Your task to perform on an android device: uninstall "Google Find My Device" Image 0: 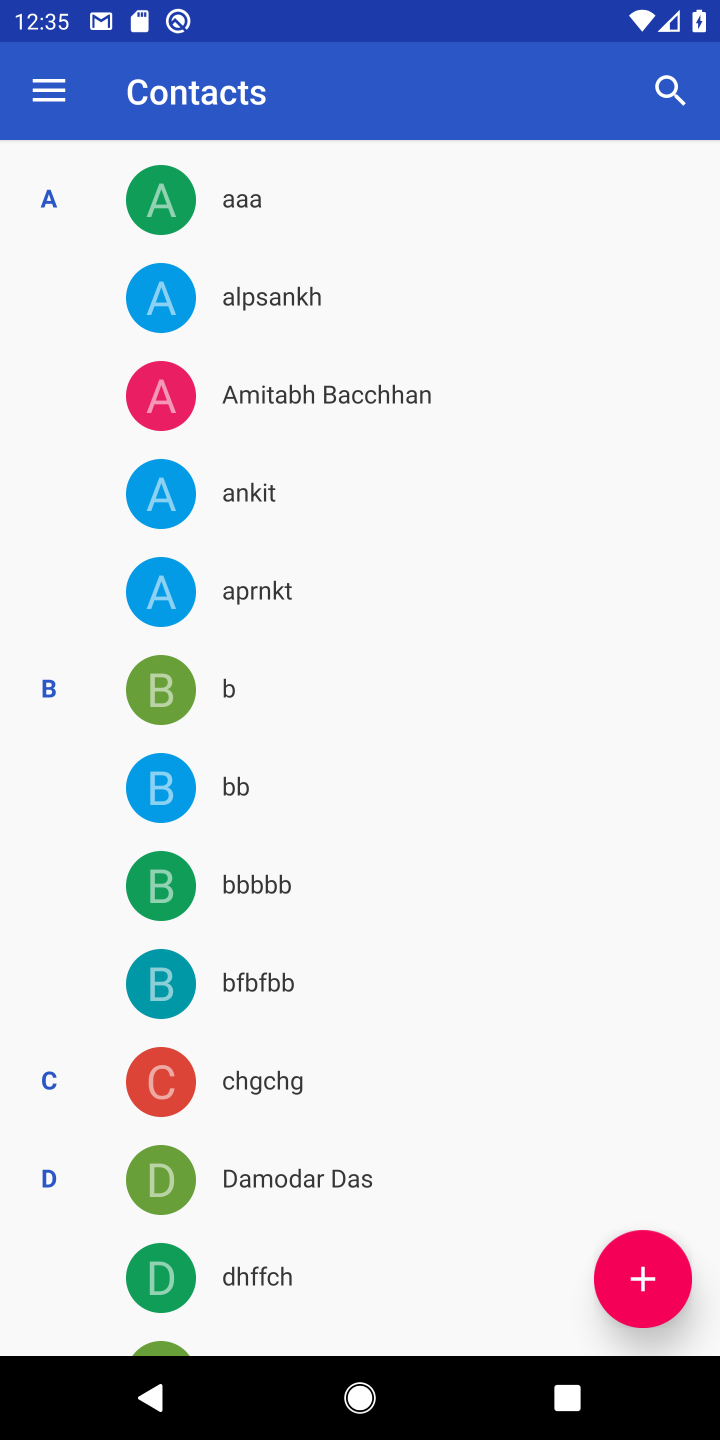
Step 0: press home button
Your task to perform on an android device: uninstall "Google Find My Device" Image 1: 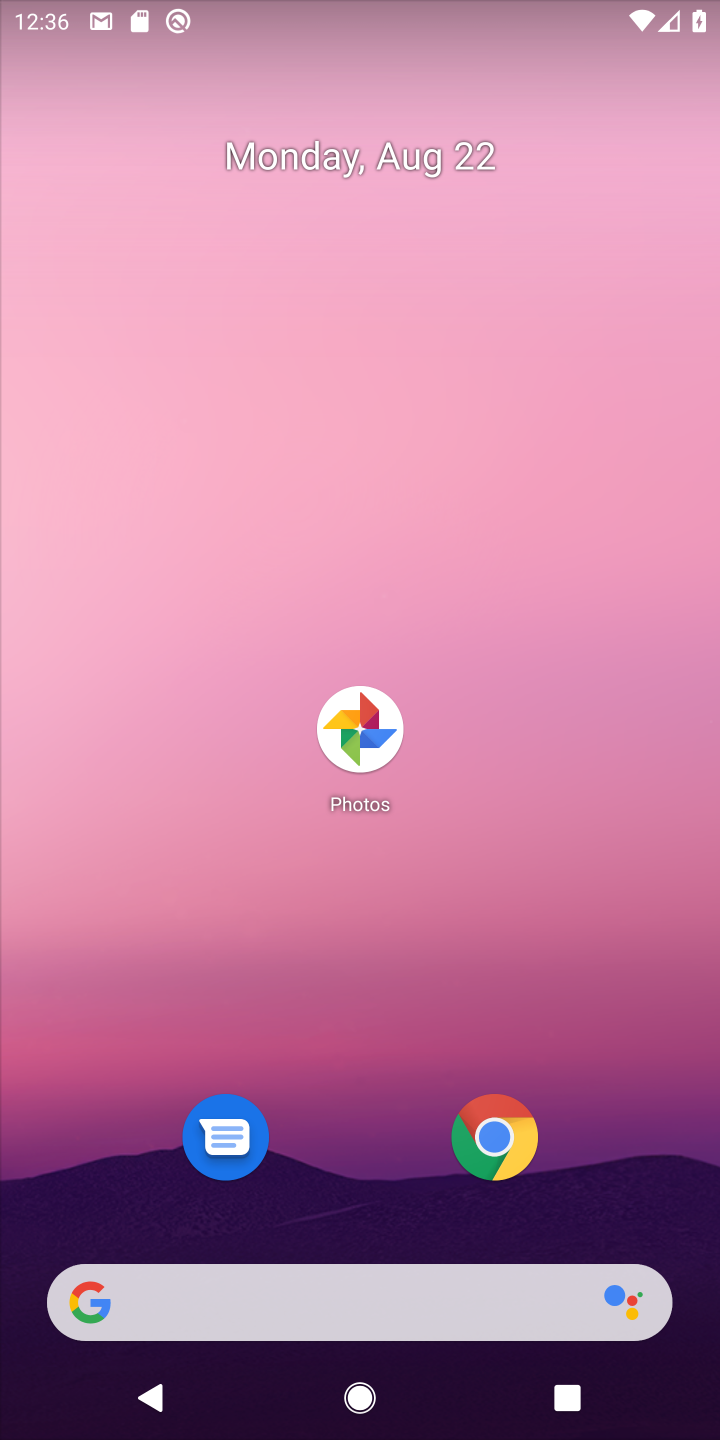
Step 1: drag from (649, 1193) to (562, 181)
Your task to perform on an android device: uninstall "Google Find My Device" Image 2: 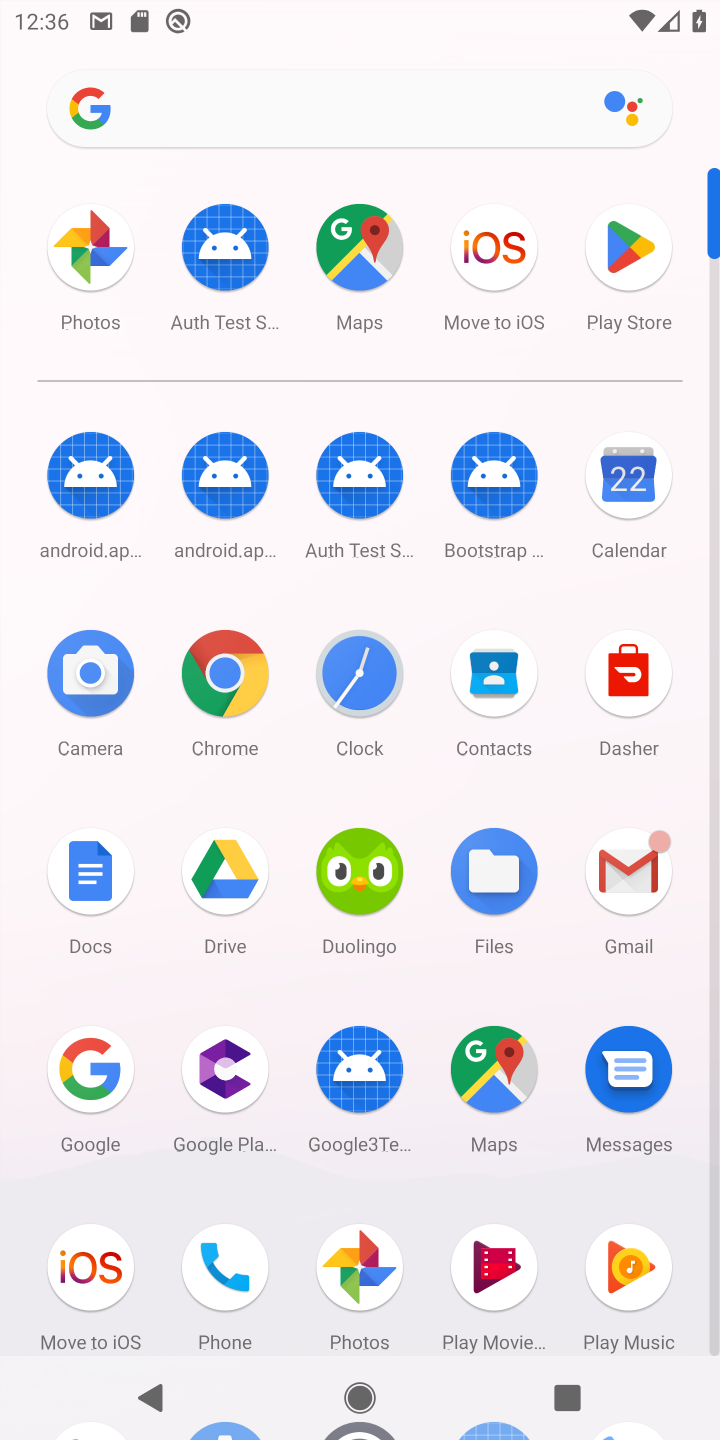
Step 2: drag from (283, 1199) to (304, 354)
Your task to perform on an android device: uninstall "Google Find My Device" Image 3: 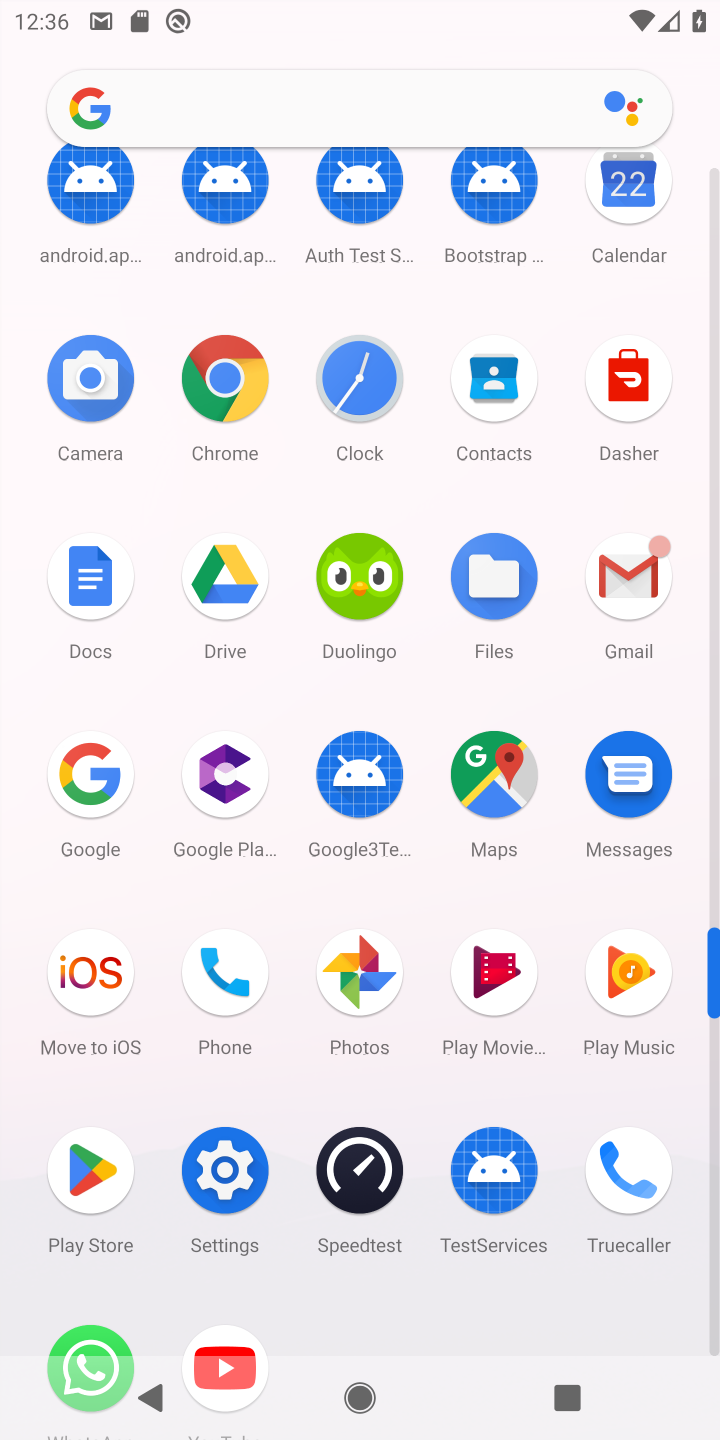
Step 3: click (95, 1168)
Your task to perform on an android device: uninstall "Google Find My Device" Image 4: 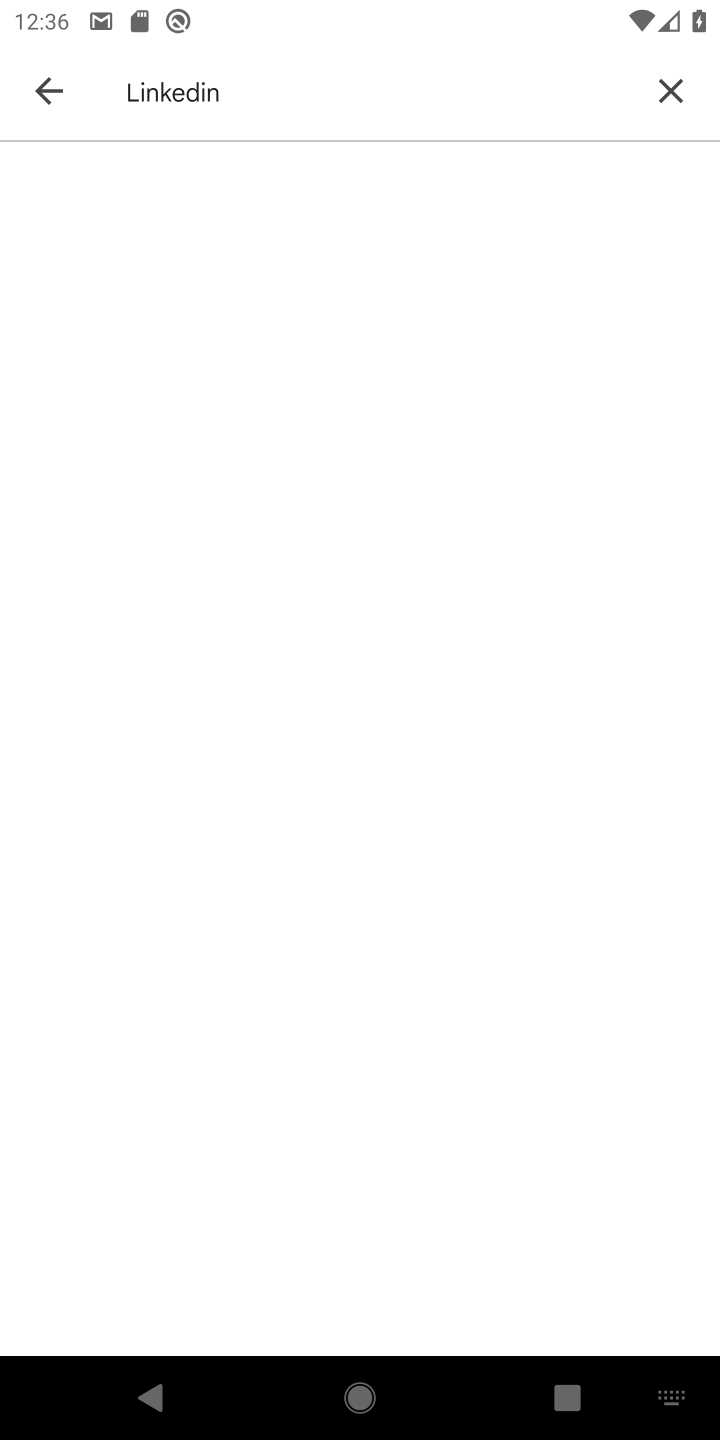
Step 4: click (673, 79)
Your task to perform on an android device: uninstall "Google Find My Device" Image 5: 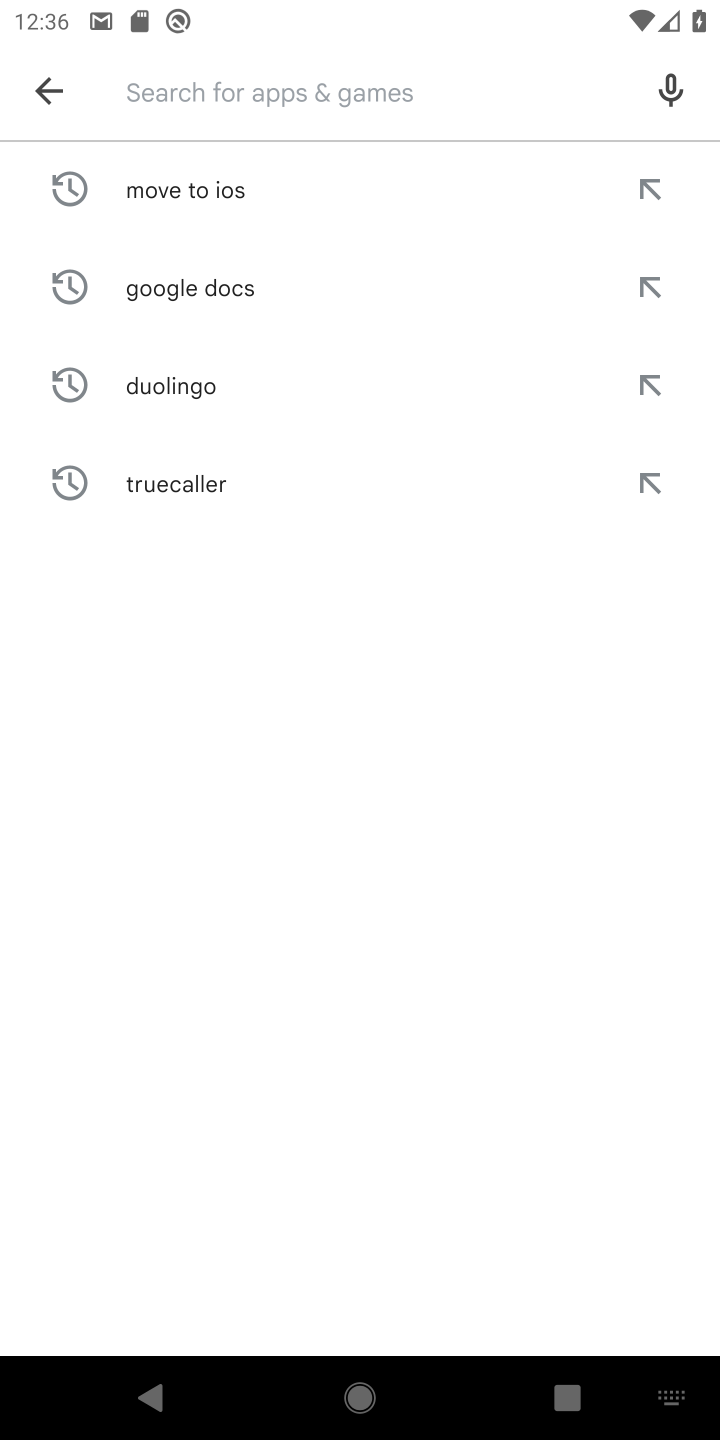
Step 5: type "Google Find My Device"
Your task to perform on an android device: uninstall "Google Find My Device" Image 6: 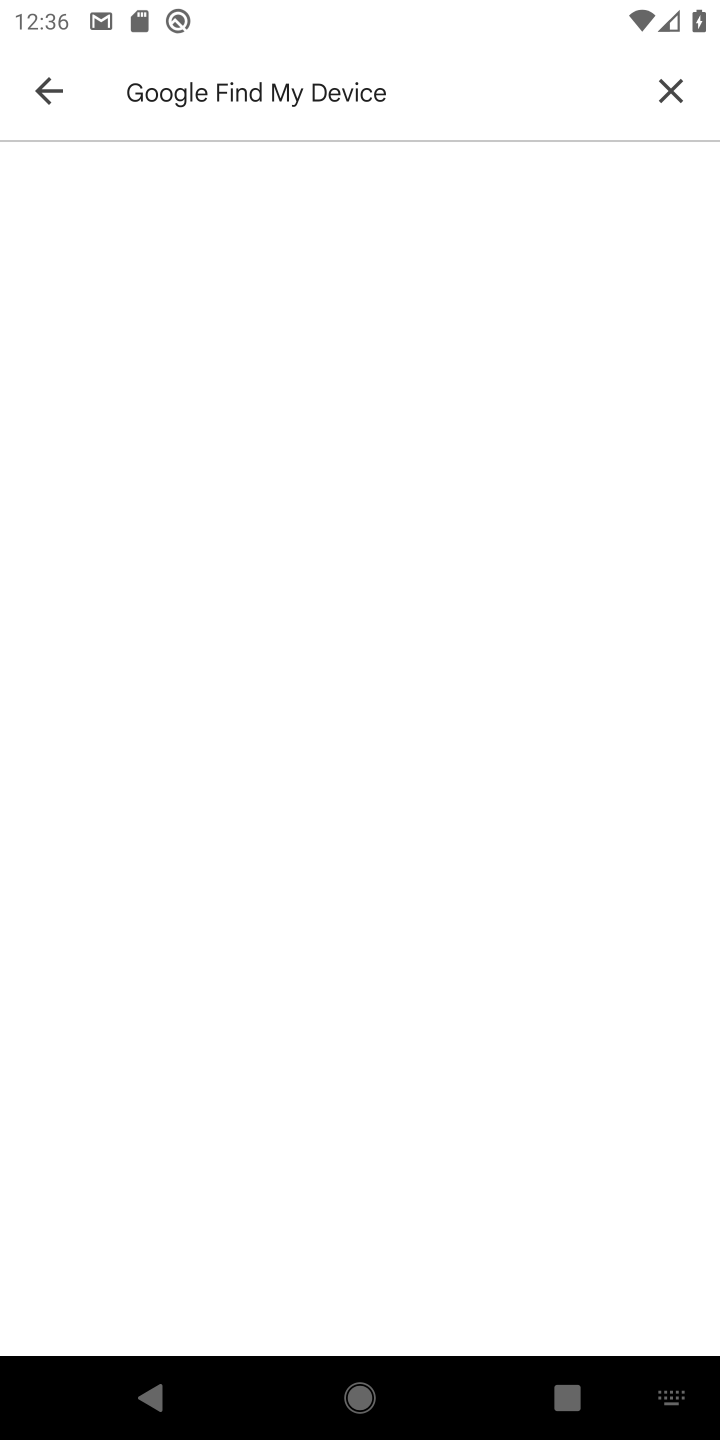
Step 6: task complete